Your task to perform on an android device: toggle data saver in the chrome app Image 0: 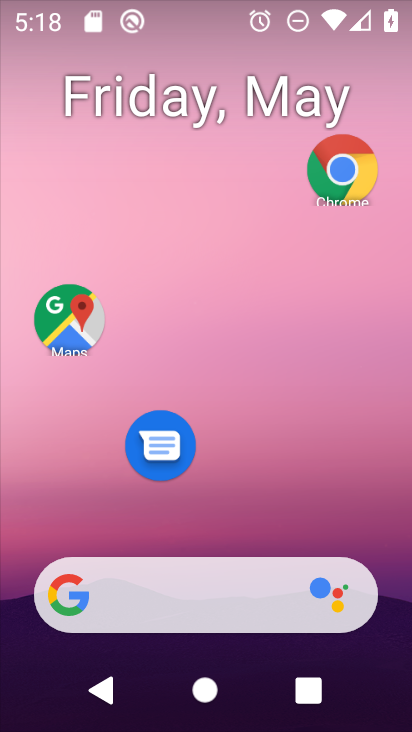
Step 0: click (330, 170)
Your task to perform on an android device: toggle data saver in the chrome app Image 1: 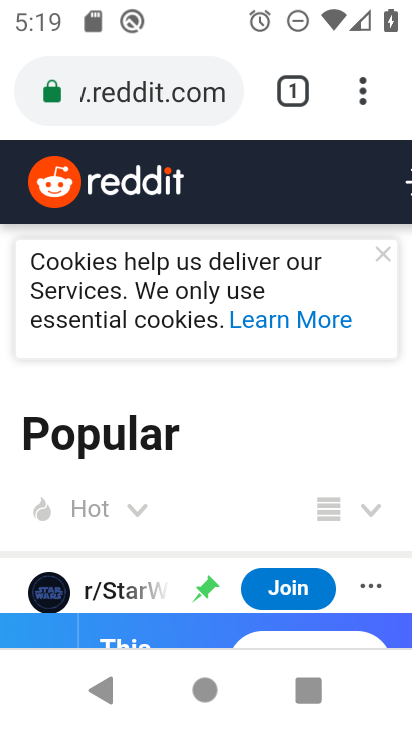
Step 1: click (360, 95)
Your task to perform on an android device: toggle data saver in the chrome app Image 2: 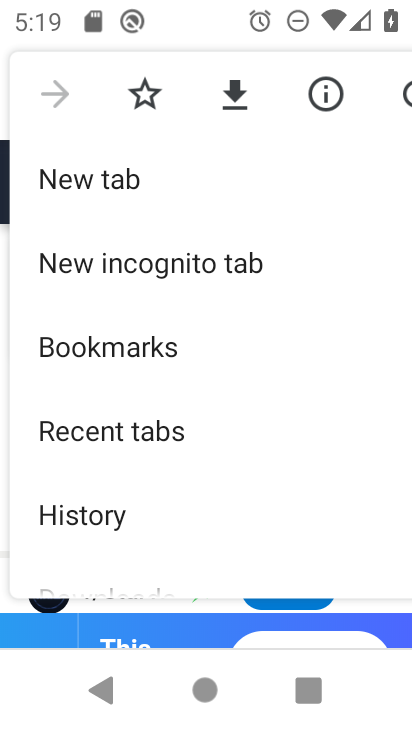
Step 2: drag from (122, 516) to (120, 192)
Your task to perform on an android device: toggle data saver in the chrome app Image 3: 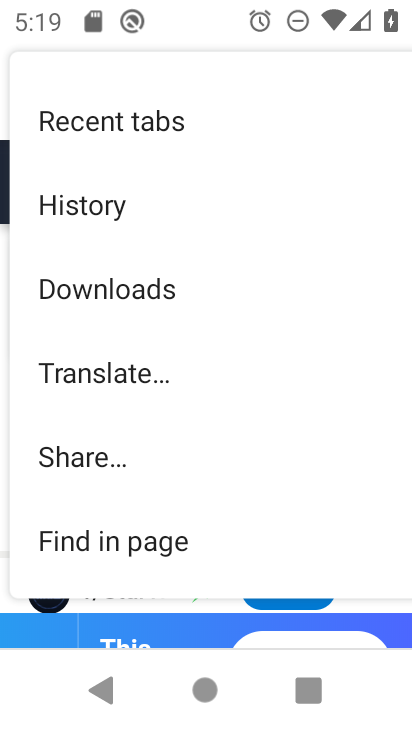
Step 3: drag from (128, 535) to (134, 202)
Your task to perform on an android device: toggle data saver in the chrome app Image 4: 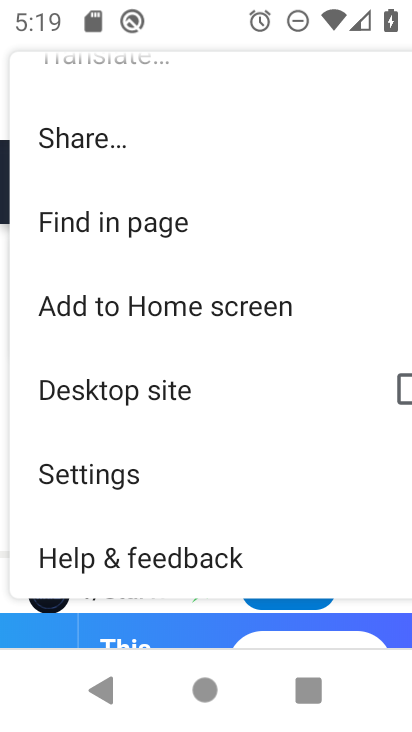
Step 4: click (114, 476)
Your task to perform on an android device: toggle data saver in the chrome app Image 5: 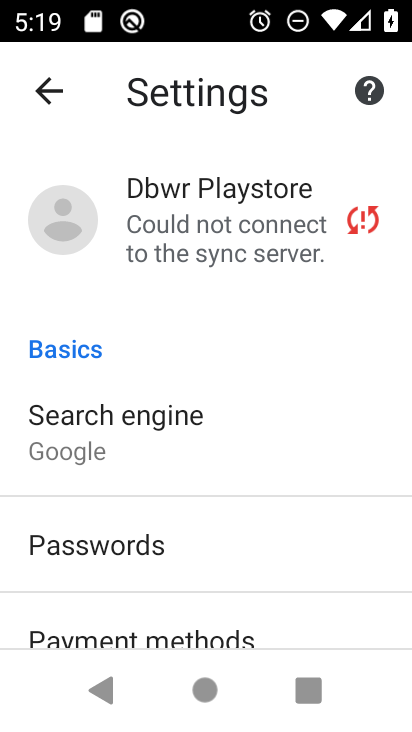
Step 5: drag from (194, 541) to (196, 233)
Your task to perform on an android device: toggle data saver in the chrome app Image 6: 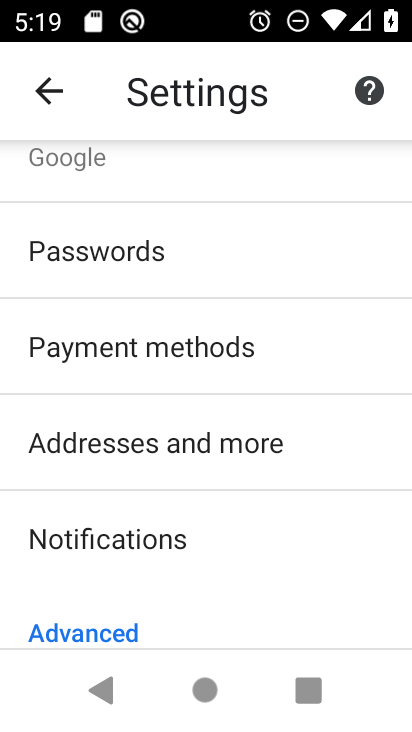
Step 6: drag from (190, 565) to (190, 238)
Your task to perform on an android device: toggle data saver in the chrome app Image 7: 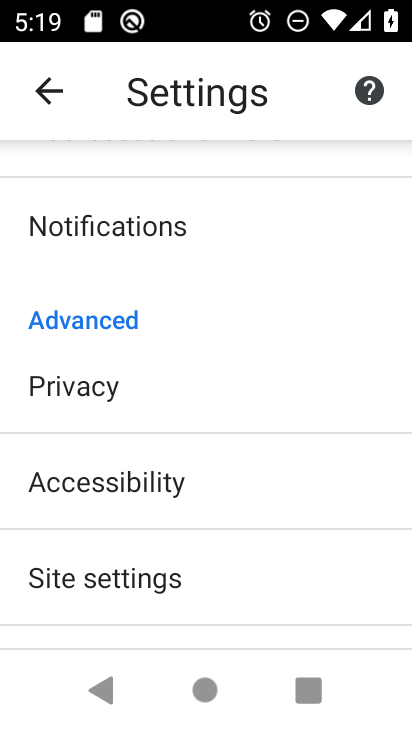
Step 7: drag from (212, 593) to (229, 203)
Your task to perform on an android device: toggle data saver in the chrome app Image 8: 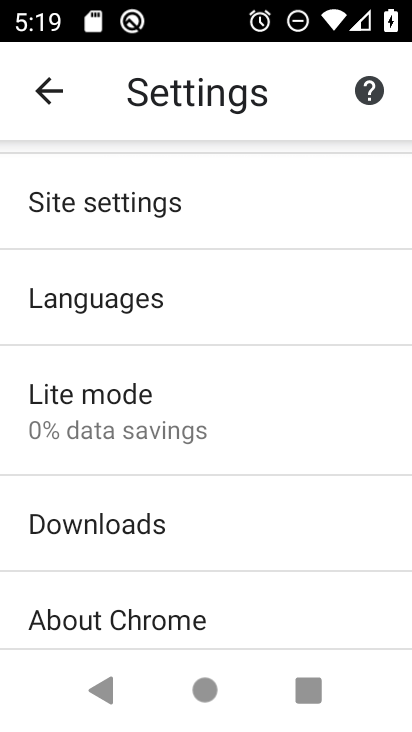
Step 8: click (146, 435)
Your task to perform on an android device: toggle data saver in the chrome app Image 9: 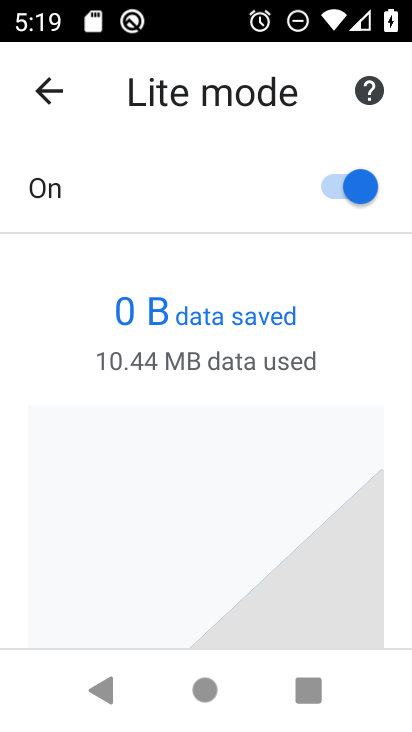
Step 9: click (327, 199)
Your task to perform on an android device: toggle data saver in the chrome app Image 10: 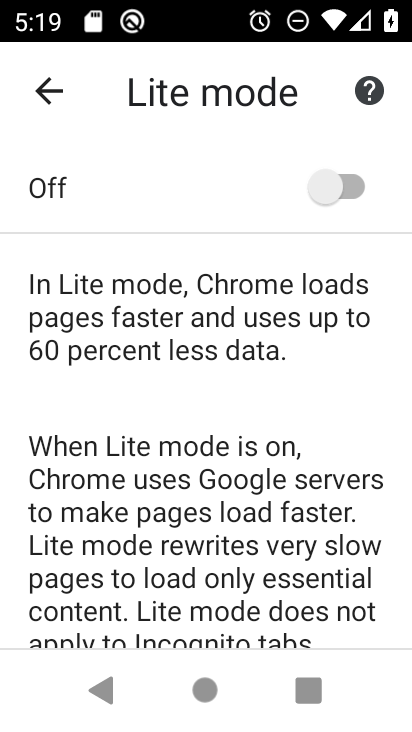
Step 10: task complete